Your task to perform on an android device: Open privacy settings Image 0: 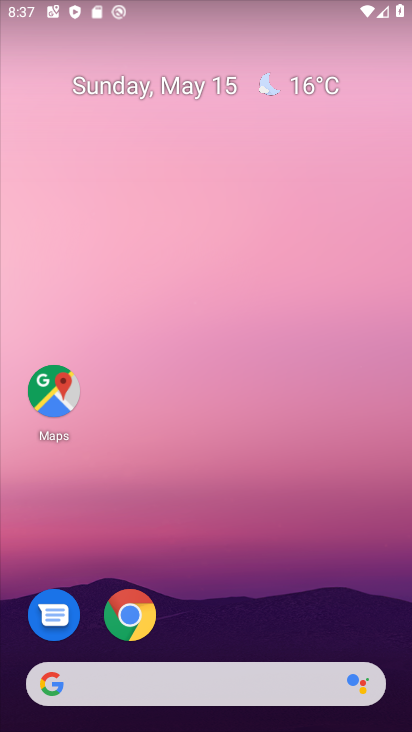
Step 0: drag from (301, 583) to (299, 39)
Your task to perform on an android device: Open privacy settings Image 1: 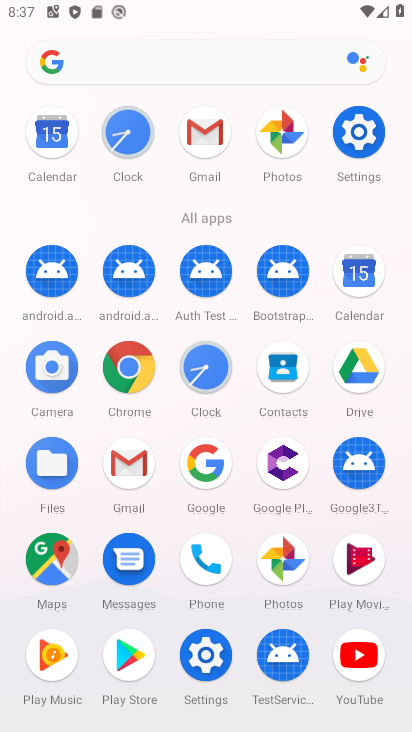
Step 1: click (368, 154)
Your task to perform on an android device: Open privacy settings Image 2: 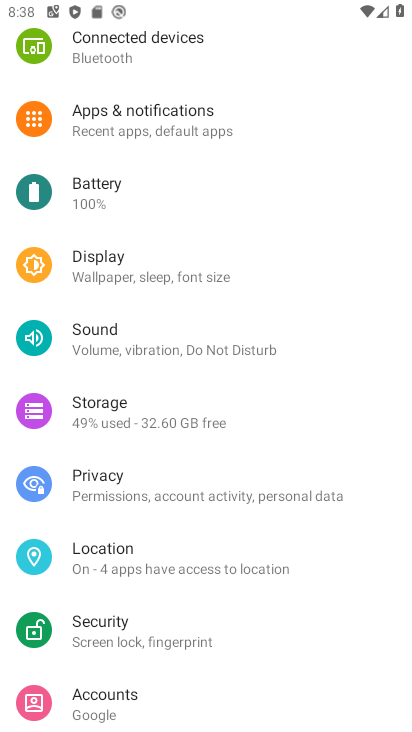
Step 2: click (72, 482)
Your task to perform on an android device: Open privacy settings Image 3: 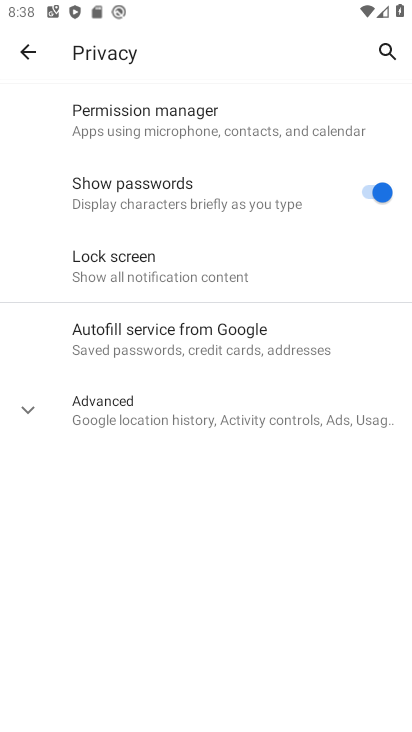
Step 3: task complete